Your task to perform on an android device: check android version Image 0: 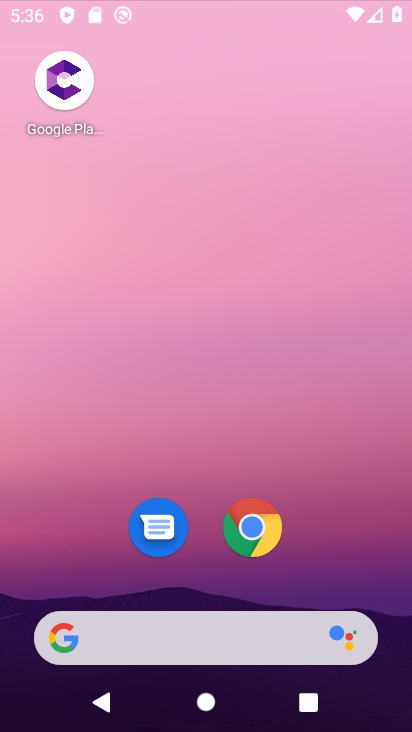
Step 0: click (381, 72)
Your task to perform on an android device: check android version Image 1: 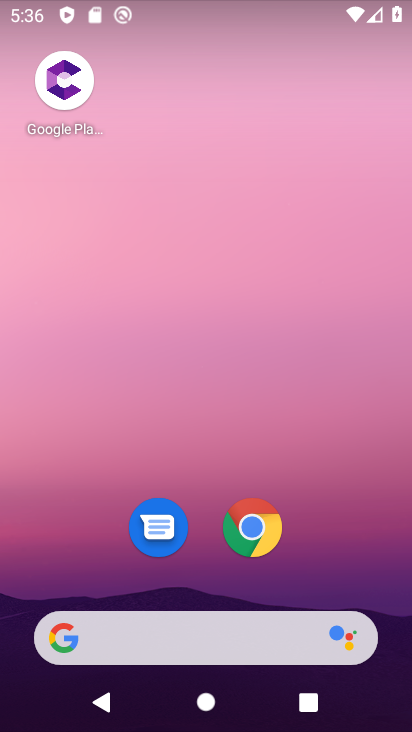
Step 1: task complete